Your task to perform on an android device: open chrome and create a bookmark for the current page Image 0: 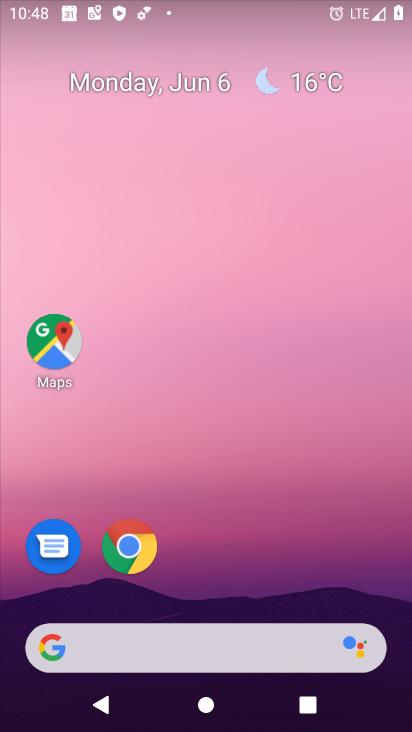
Step 0: click (130, 532)
Your task to perform on an android device: open chrome and create a bookmark for the current page Image 1: 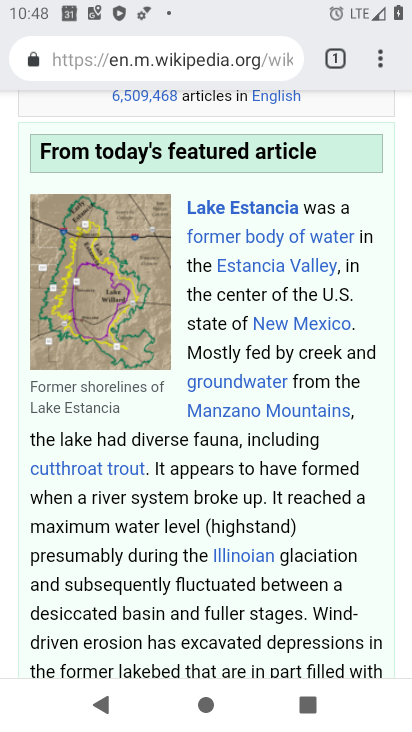
Step 1: click (384, 48)
Your task to perform on an android device: open chrome and create a bookmark for the current page Image 2: 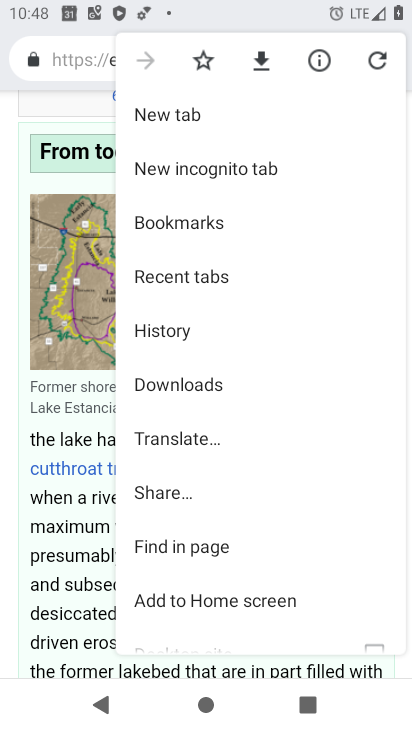
Step 2: click (199, 65)
Your task to perform on an android device: open chrome and create a bookmark for the current page Image 3: 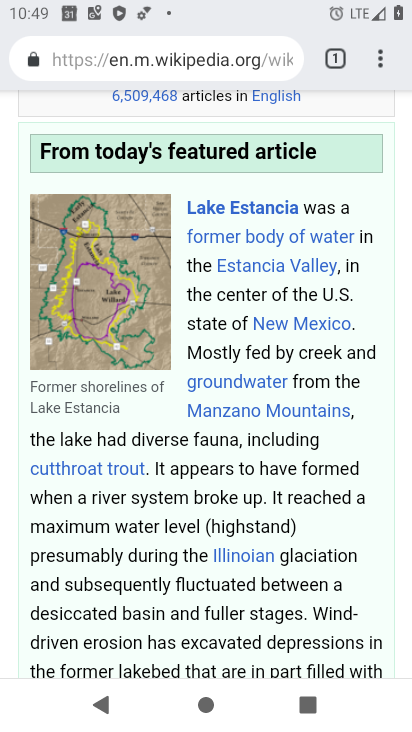
Step 3: task complete